Your task to perform on an android device: Do I have any events today? Image 0: 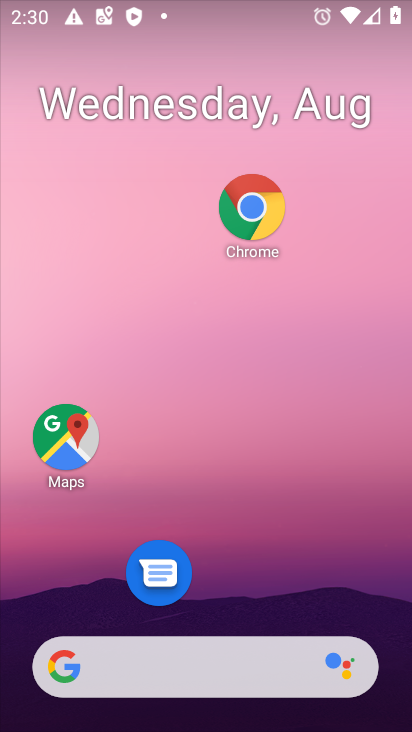
Step 0: drag from (260, 636) to (294, 146)
Your task to perform on an android device: Do I have any events today? Image 1: 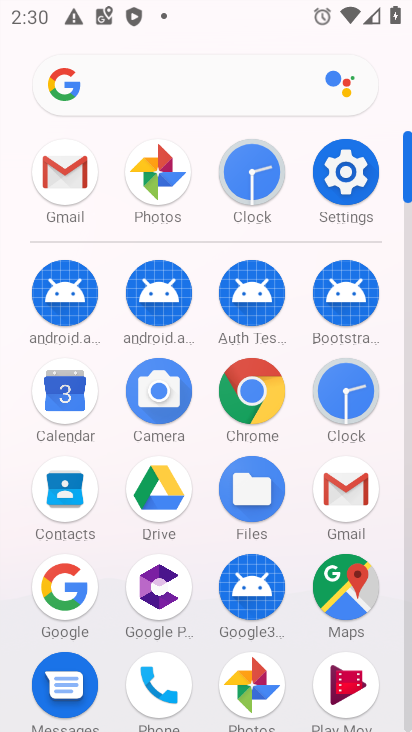
Step 1: click (70, 399)
Your task to perform on an android device: Do I have any events today? Image 2: 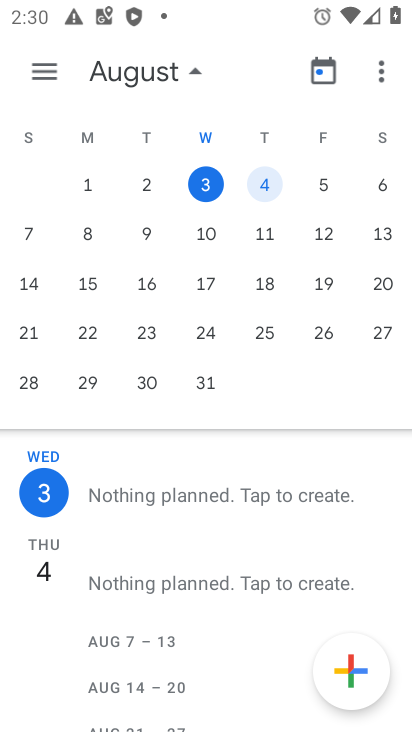
Step 2: click (202, 188)
Your task to perform on an android device: Do I have any events today? Image 3: 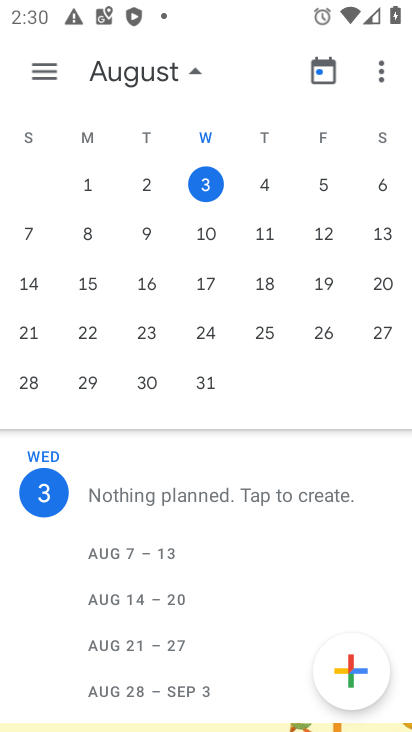
Step 3: task complete